Your task to perform on an android device: Go to privacy settings Image 0: 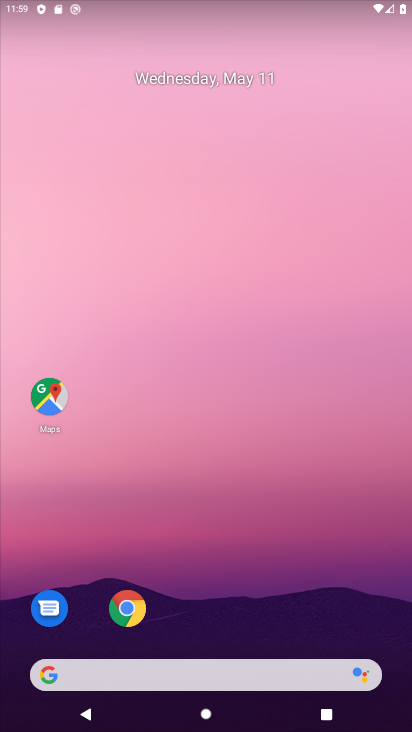
Step 0: drag from (242, 609) to (297, 5)
Your task to perform on an android device: Go to privacy settings Image 1: 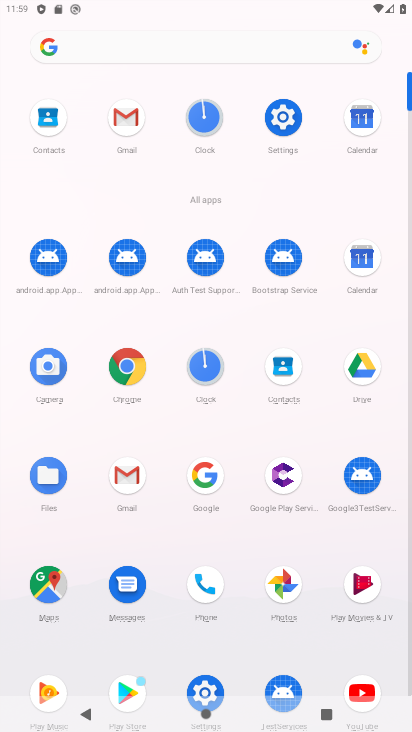
Step 1: click (286, 121)
Your task to perform on an android device: Go to privacy settings Image 2: 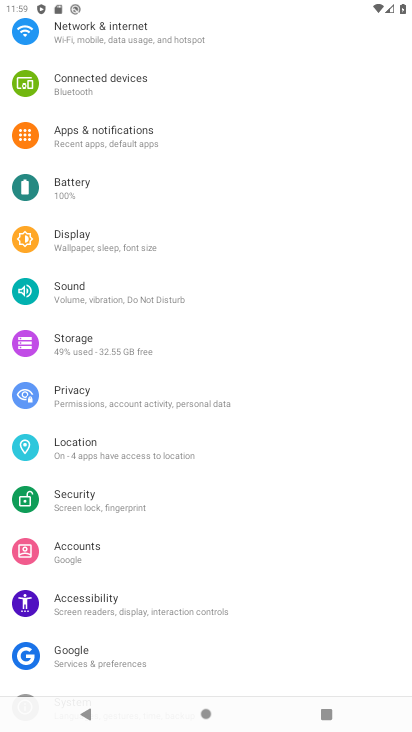
Step 2: click (118, 402)
Your task to perform on an android device: Go to privacy settings Image 3: 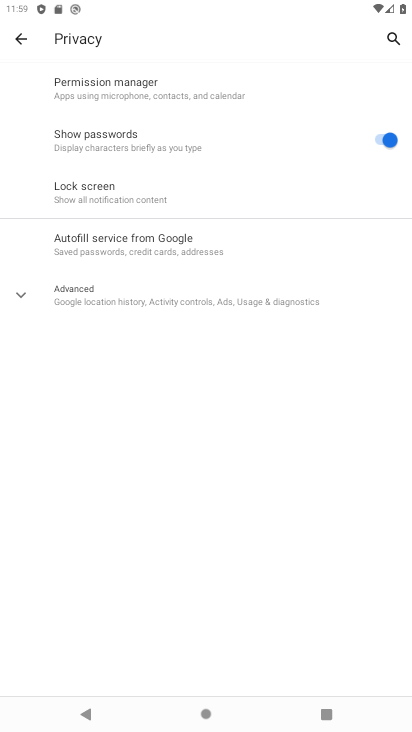
Step 3: task complete